Your task to perform on an android device: toggle location history Image 0: 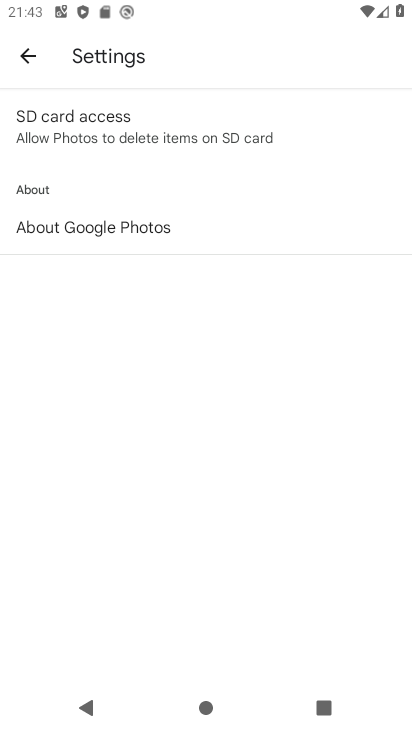
Step 0: press home button
Your task to perform on an android device: toggle location history Image 1: 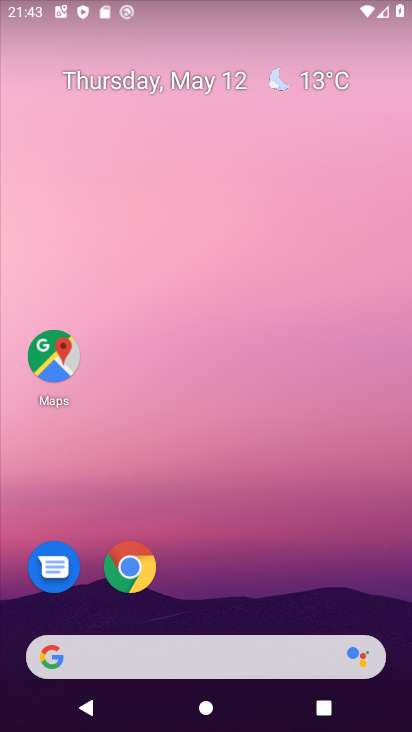
Step 1: drag from (199, 608) to (211, 130)
Your task to perform on an android device: toggle location history Image 2: 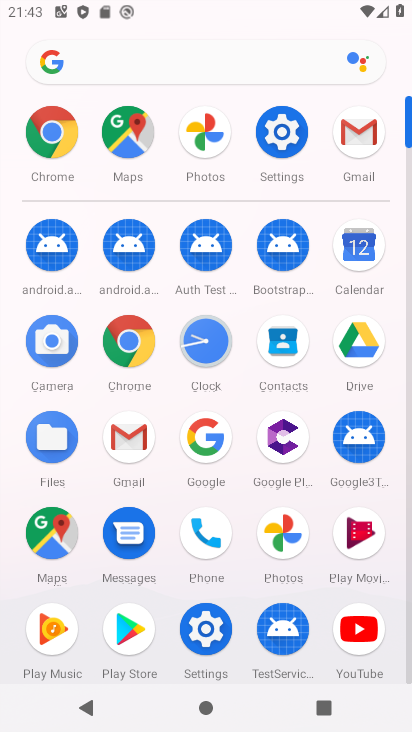
Step 2: click (279, 129)
Your task to perform on an android device: toggle location history Image 3: 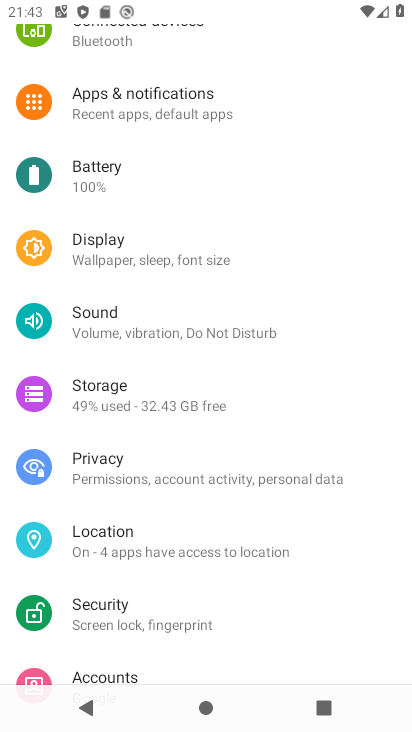
Step 3: click (138, 531)
Your task to perform on an android device: toggle location history Image 4: 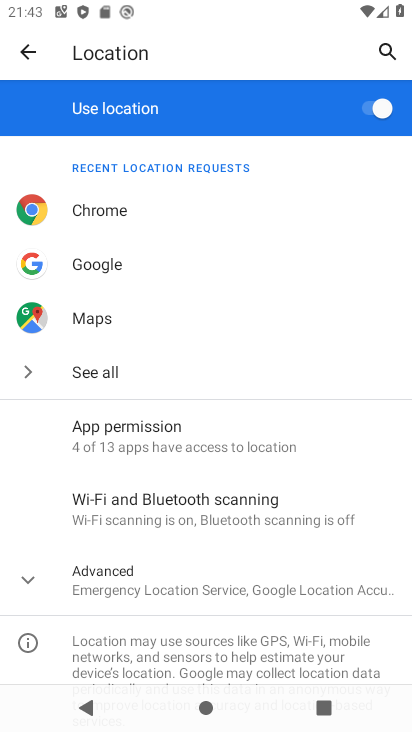
Step 4: click (24, 571)
Your task to perform on an android device: toggle location history Image 5: 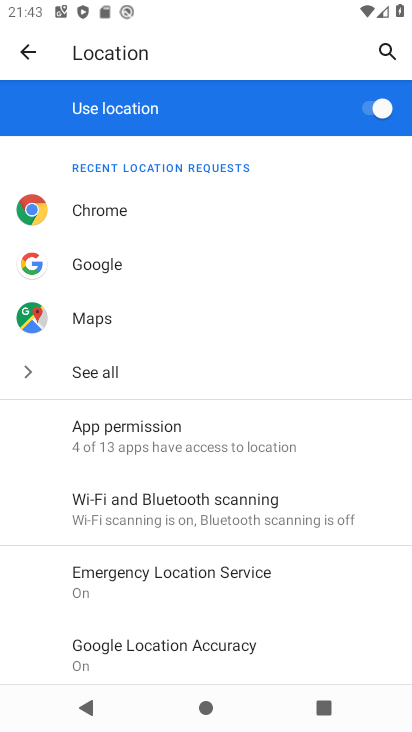
Step 5: drag from (184, 649) to (181, 261)
Your task to perform on an android device: toggle location history Image 6: 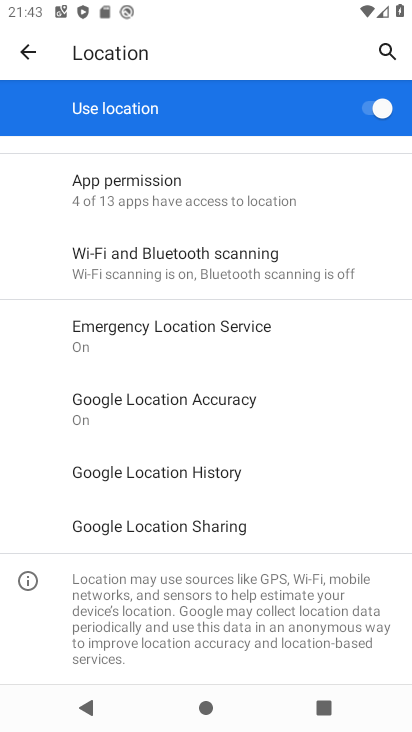
Step 6: click (250, 469)
Your task to perform on an android device: toggle location history Image 7: 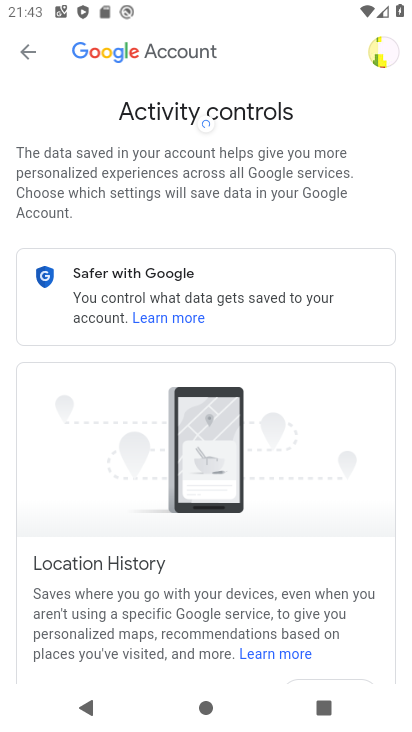
Step 7: task complete